Your task to perform on an android device: Open notification settings Image 0: 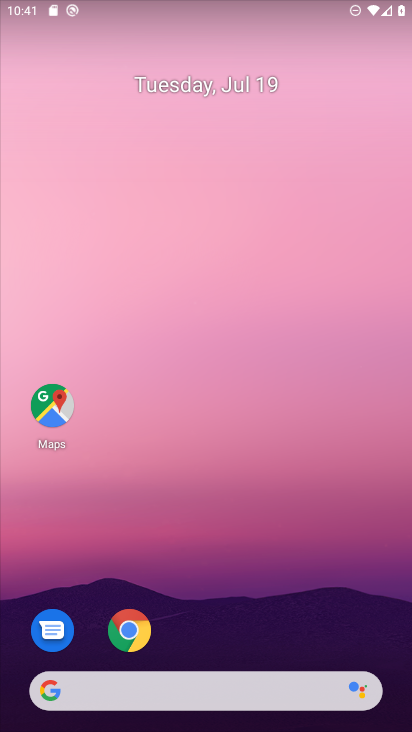
Step 0: drag from (168, 688) to (306, 44)
Your task to perform on an android device: Open notification settings Image 1: 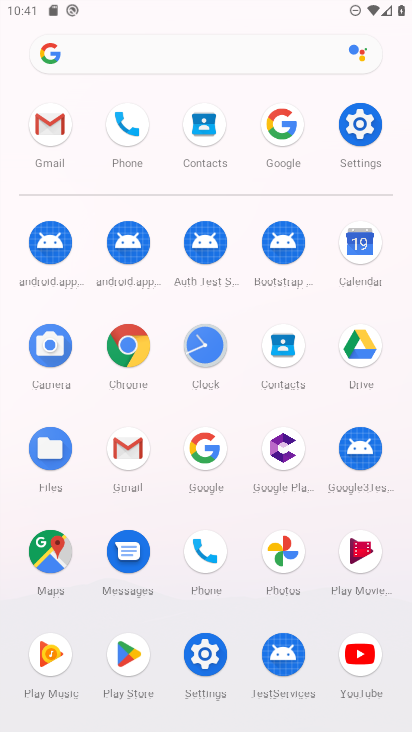
Step 1: click (362, 124)
Your task to perform on an android device: Open notification settings Image 2: 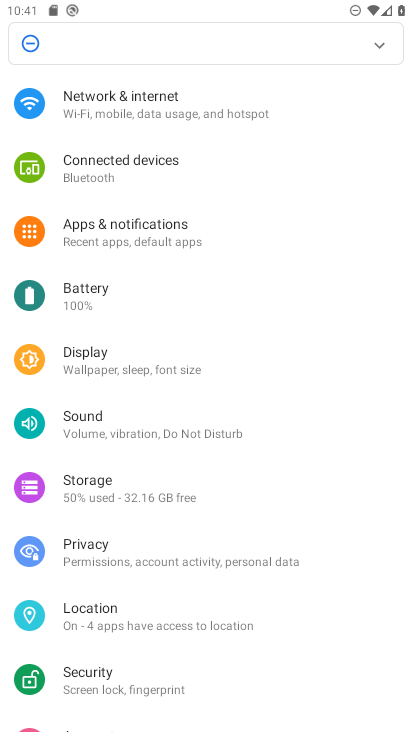
Step 2: click (112, 229)
Your task to perform on an android device: Open notification settings Image 3: 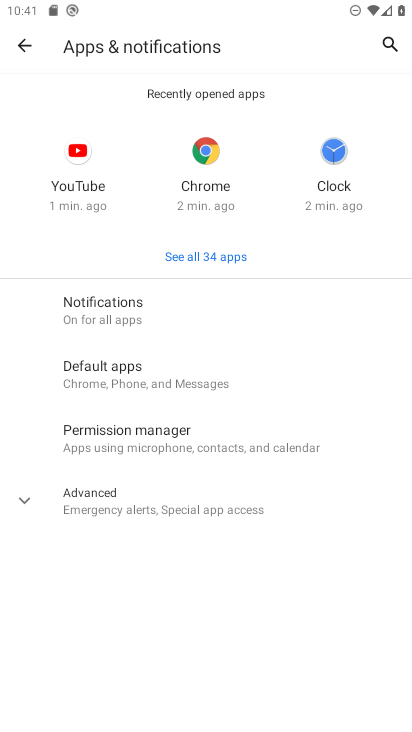
Step 3: click (95, 311)
Your task to perform on an android device: Open notification settings Image 4: 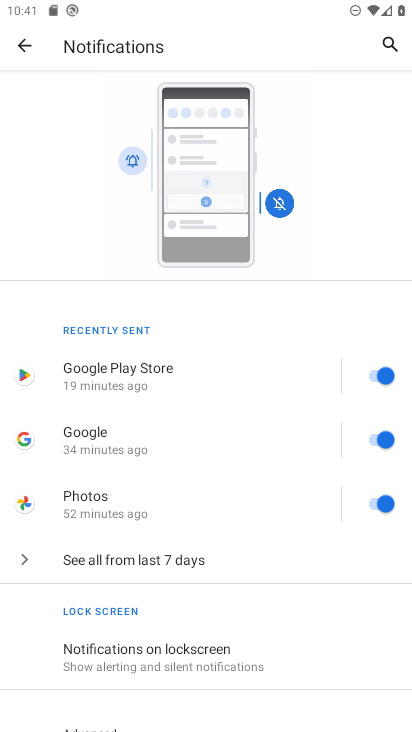
Step 4: task complete